Your task to perform on an android device: Open the calendar and show me this week's events? Image 0: 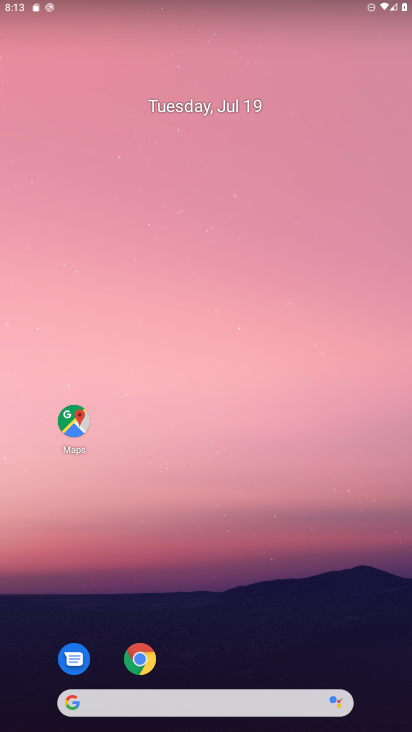
Step 0: drag from (188, 630) to (210, 130)
Your task to perform on an android device: Open the calendar and show me this week's events? Image 1: 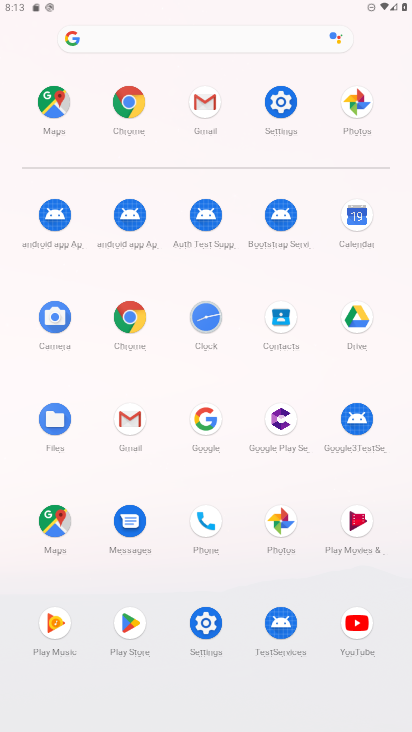
Step 1: click (349, 219)
Your task to perform on an android device: Open the calendar and show me this week's events? Image 2: 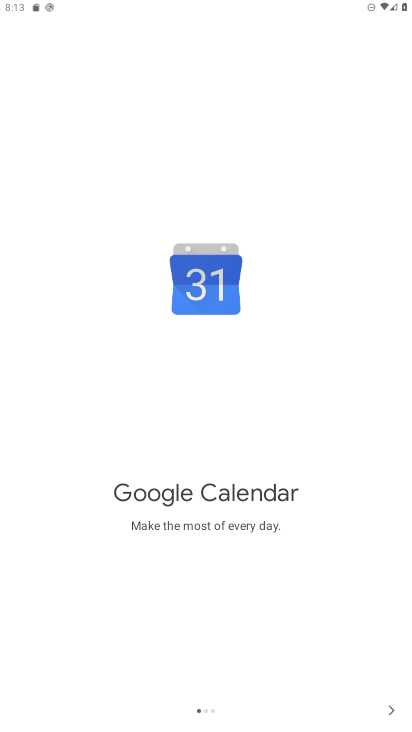
Step 2: click (375, 708)
Your task to perform on an android device: Open the calendar and show me this week's events? Image 3: 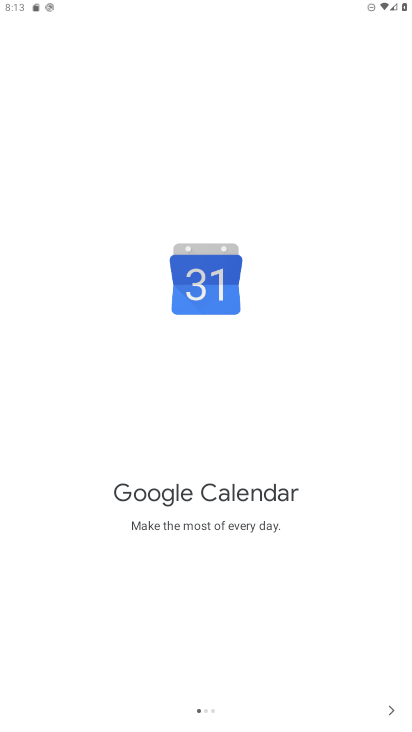
Step 3: click (382, 708)
Your task to perform on an android device: Open the calendar and show me this week's events? Image 4: 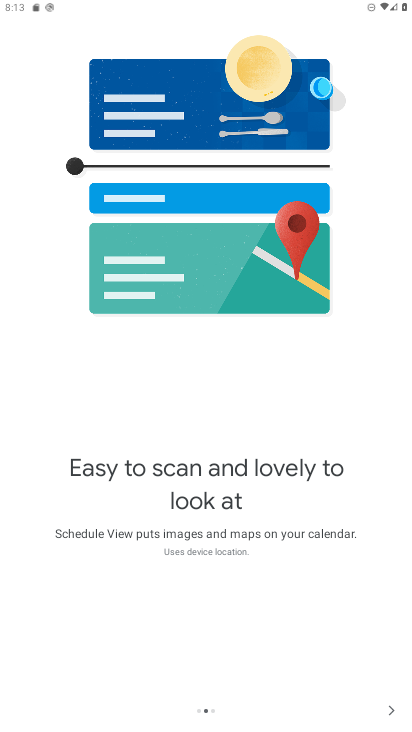
Step 4: click (387, 706)
Your task to perform on an android device: Open the calendar and show me this week's events? Image 5: 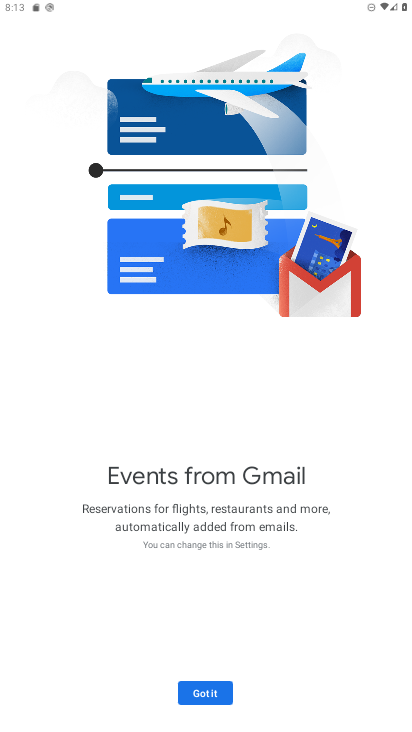
Step 5: click (183, 691)
Your task to perform on an android device: Open the calendar and show me this week's events? Image 6: 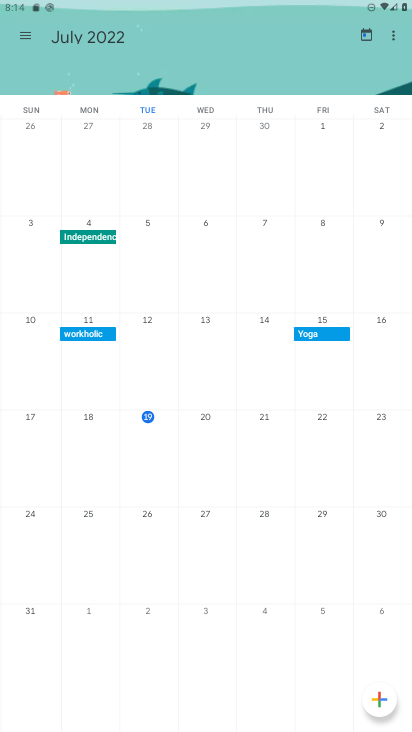
Step 6: click (26, 37)
Your task to perform on an android device: Open the calendar and show me this week's events? Image 7: 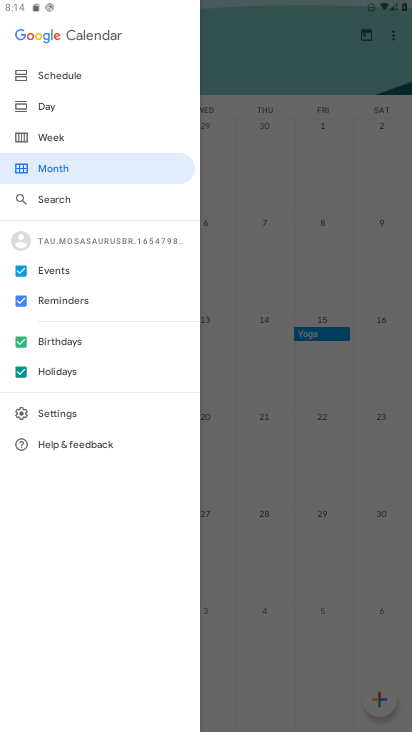
Step 7: click (59, 128)
Your task to perform on an android device: Open the calendar and show me this week's events? Image 8: 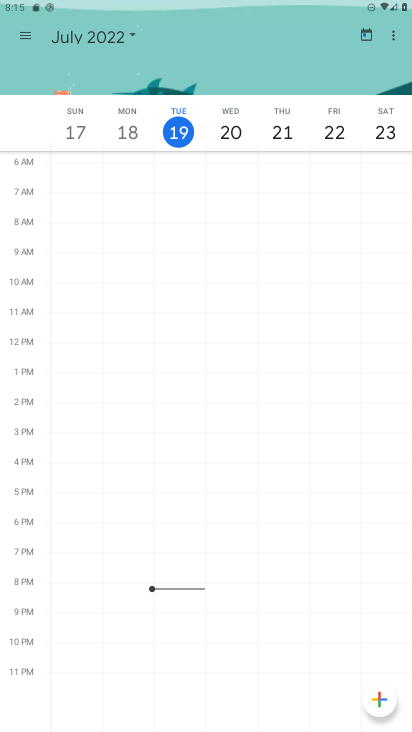
Step 8: task complete